Your task to perform on an android device: remove spam from my inbox in the gmail app Image 0: 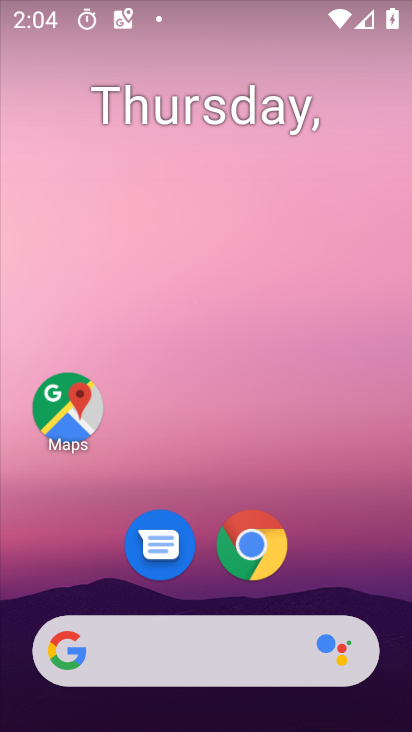
Step 0: drag from (239, 682) to (238, 66)
Your task to perform on an android device: remove spam from my inbox in the gmail app Image 1: 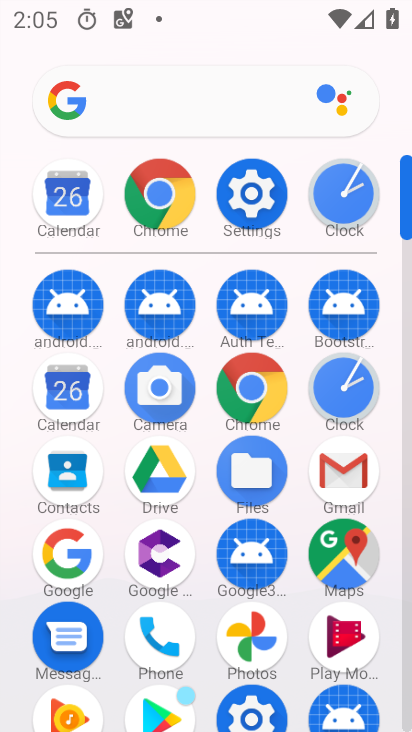
Step 1: click (336, 471)
Your task to perform on an android device: remove spam from my inbox in the gmail app Image 2: 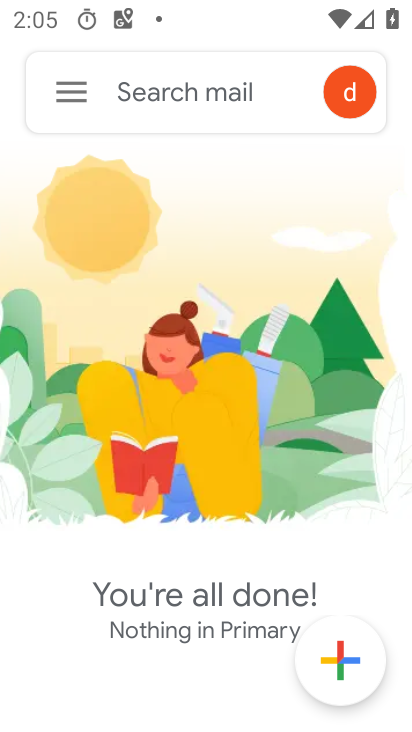
Step 2: task complete